Your task to perform on an android device: Go to Android settings Image 0: 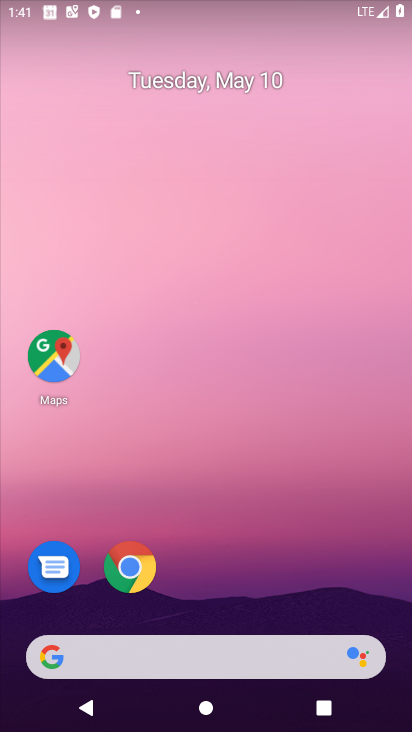
Step 0: drag from (391, 615) to (329, 3)
Your task to perform on an android device: Go to Android settings Image 1: 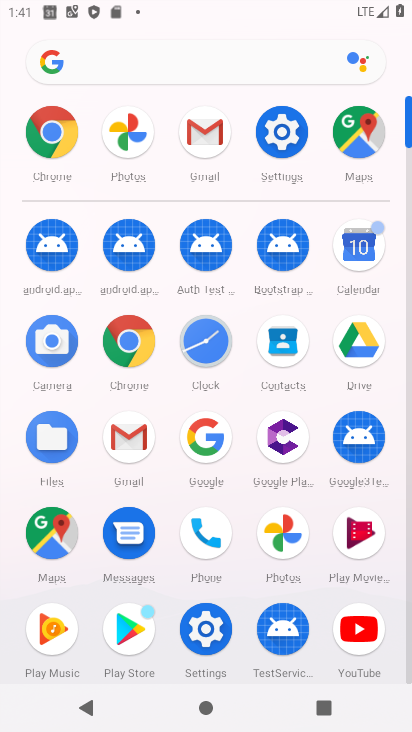
Step 1: click (211, 623)
Your task to perform on an android device: Go to Android settings Image 2: 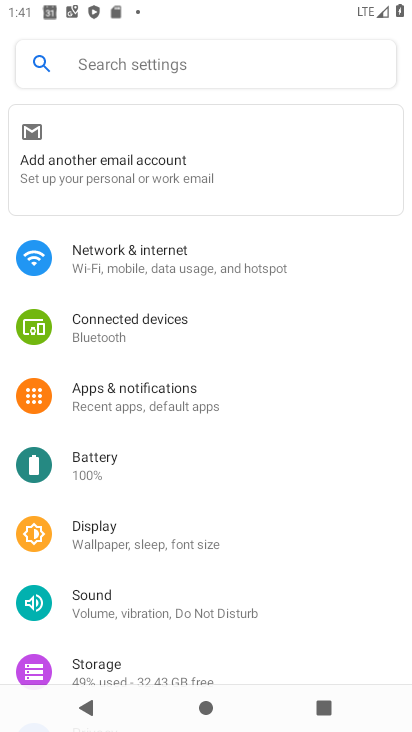
Step 2: drag from (211, 621) to (236, 40)
Your task to perform on an android device: Go to Android settings Image 3: 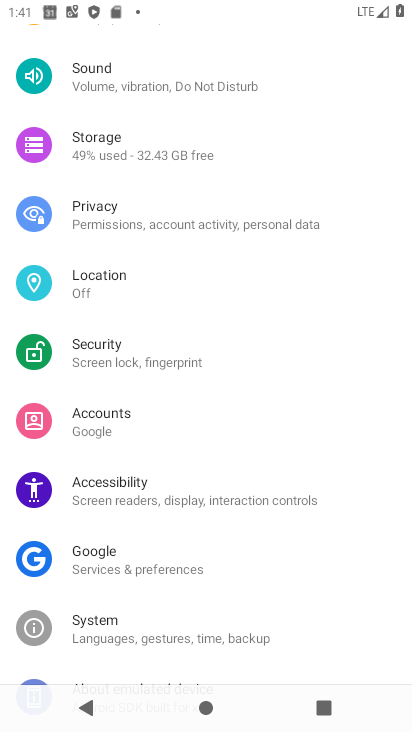
Step 3: drag from (195, 617) to (255, 128)
Your task to perform on an android device: Go to Android settings Image 4: 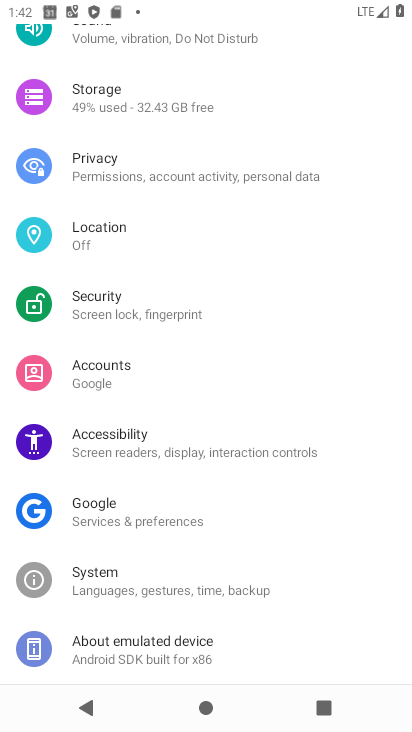
Step 4: click (153, 655)
Your task to perform on an android device: Go to Android settings Image 5: 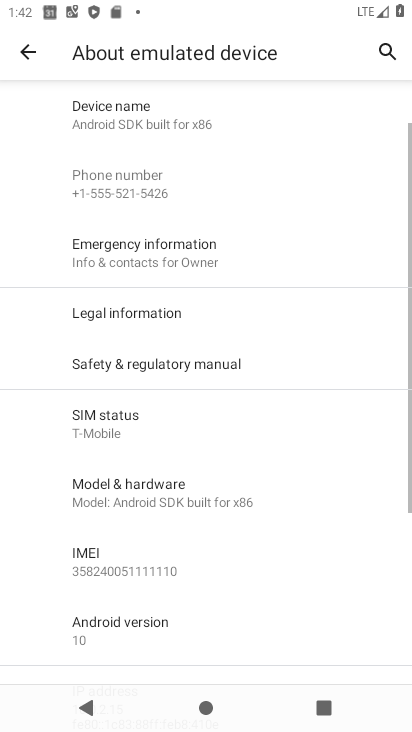
Step 5: click (171, 625)
Your task to perform on an android device: Go to Android settings Image 6: 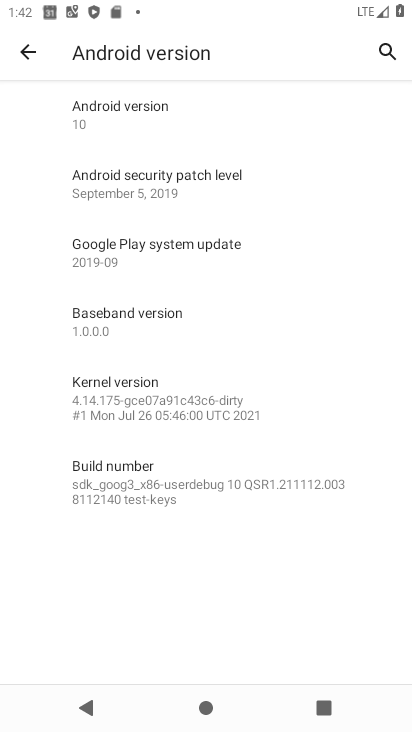
Step 6: task complete